Your task to perform on an android device: turn on notifications settings in the gmail app Image 0: 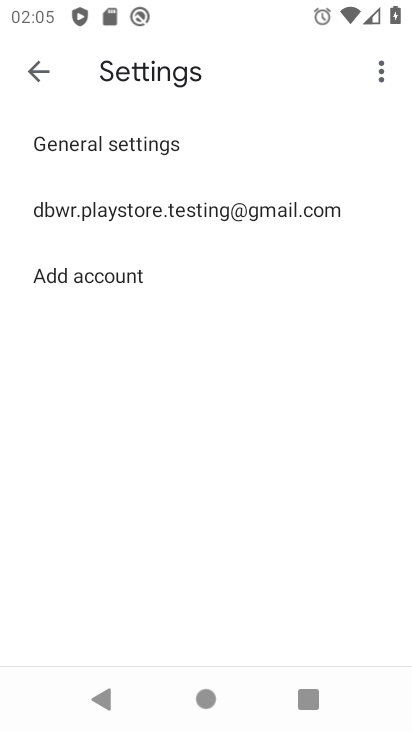
Step 0: press home button
Your task to perform on an android device: turn on notifications settings in the gmail app Image 1: 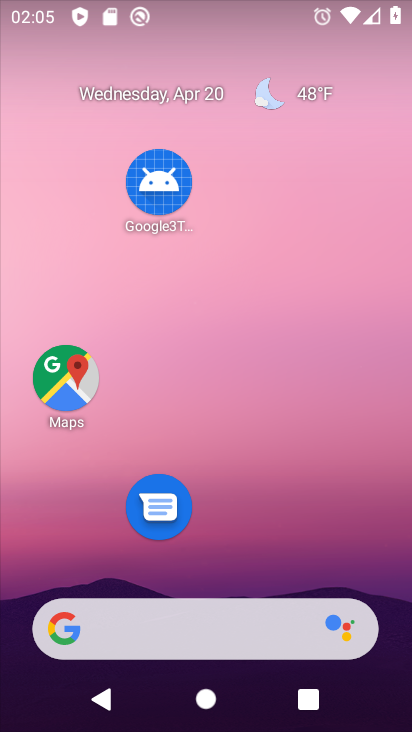
Step 1: drag from (251, 500) to (280, 40)
Your task to perform on an android device: turn on notifications settings in the gmail app Image 2: 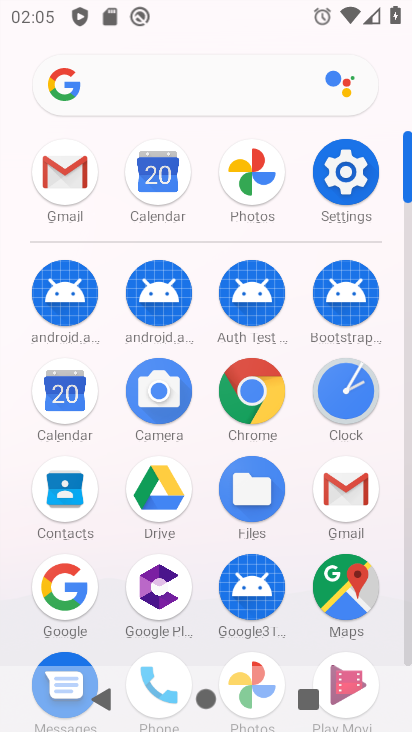
Step 2: click (342, 495)
Your task to perform on an android device: turn on notifications settings in the gmail app Image 3: 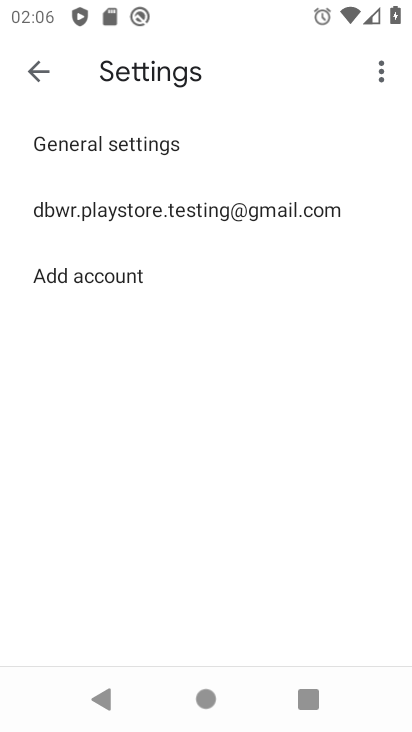
Step 3: click (92, 137)
Your task to perform on an android device: turn on notifications settings in the gmail app Image 4: 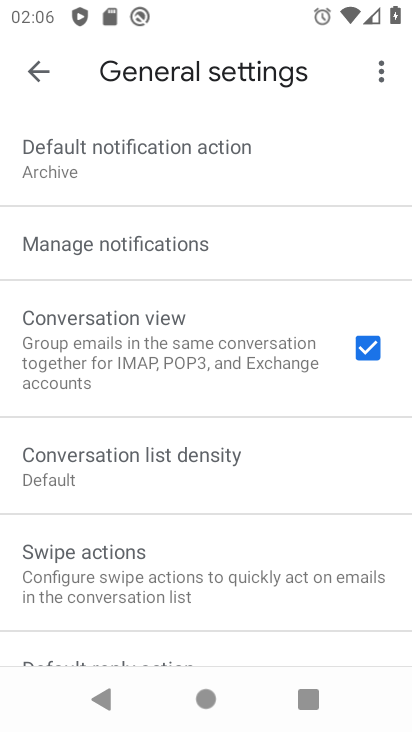
Step 4: click (111, 242)
Your task to perform on an android device: turn on notifications settings in the gmail app Image 5: 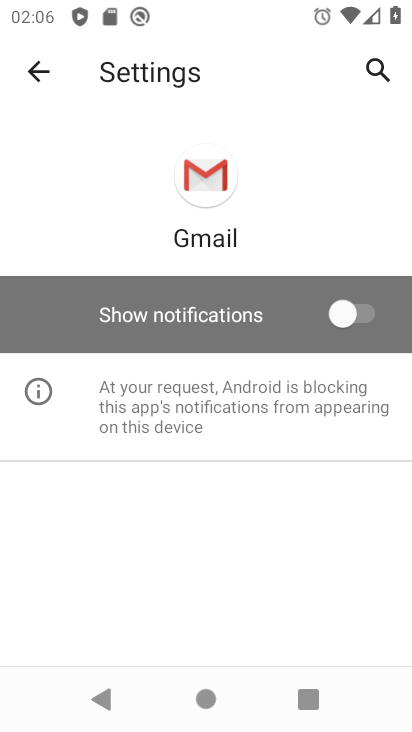
Step 5: click (336, 309)
Your task to perform on an android device: turn on notifications settings in the gmail app Image 6: 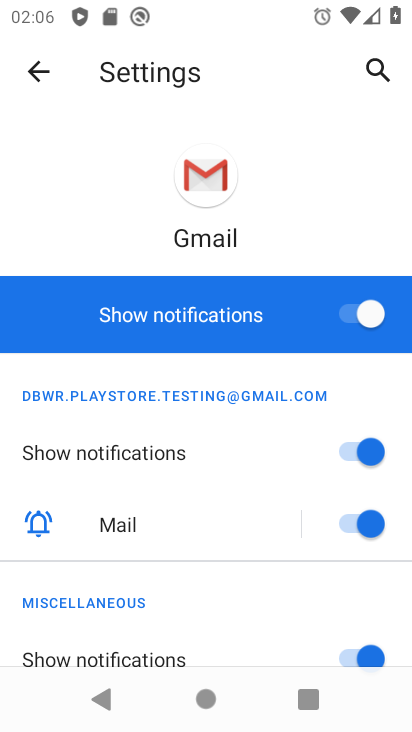
Step 6: task complete